Your task to perform on an android device: Search for vegetarian restaurants on Maps Image 0: 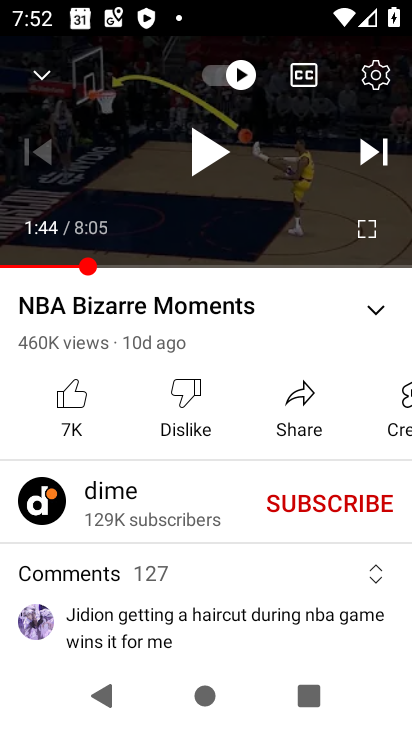
Step 0: drag from (371, 526) to (362, 261)
Your task to perform on an android device: Search for vegetarian restaurants on Maps Image 1: 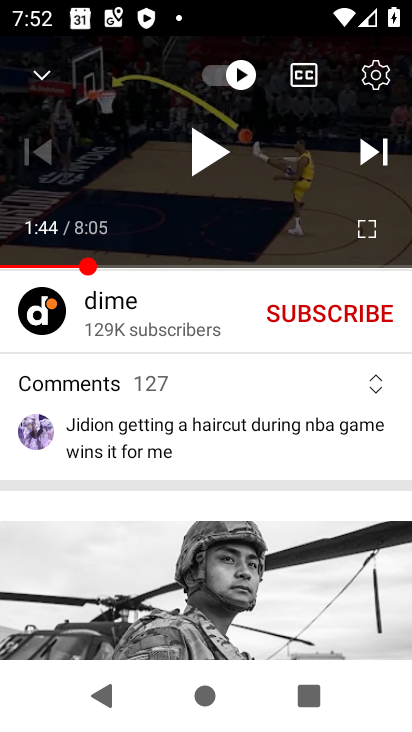
Step 1: press home button
Your task to perform on an android device: Search for vegetarian restaurants on Maps Image 2: 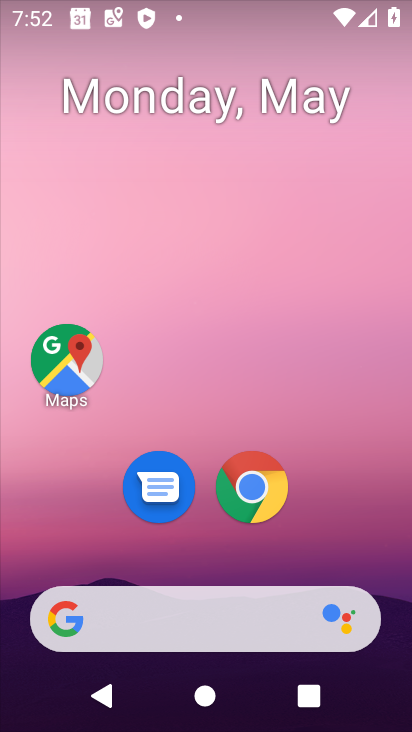
Step 2: drag from (348, 560) to (357, 169)
Your task to perform on an android device: Search for vegetarian restaurants on Maps Image 3: 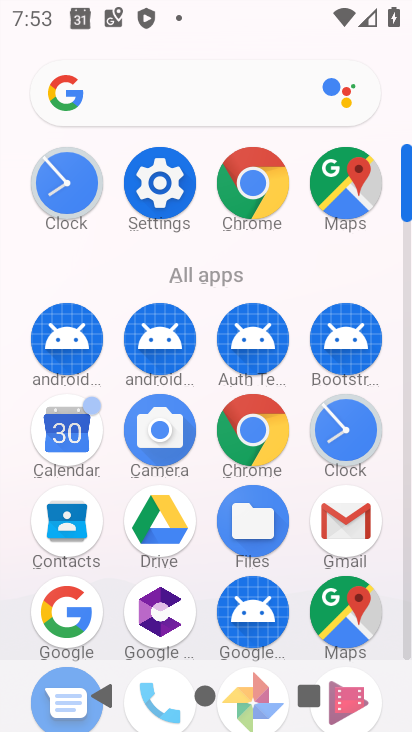
Step 3: click (356, 202)
Your task to perform on an android device: Search for vegetarian restaurants on Maps Image 4: 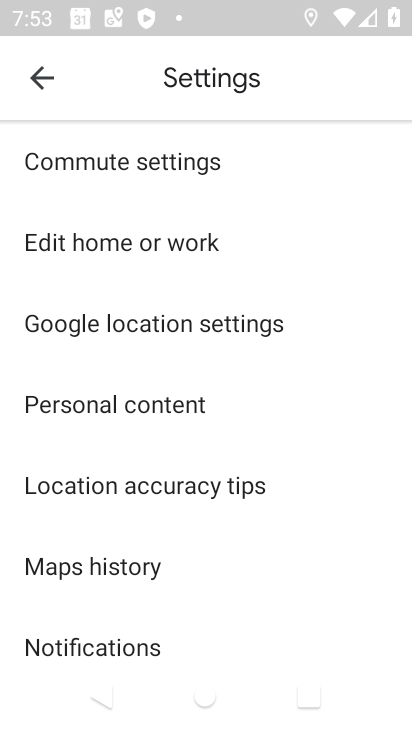
Step 4: press back button
Your task to perform on an android device: Search for vegetarian restaurants on Maps Image 5: 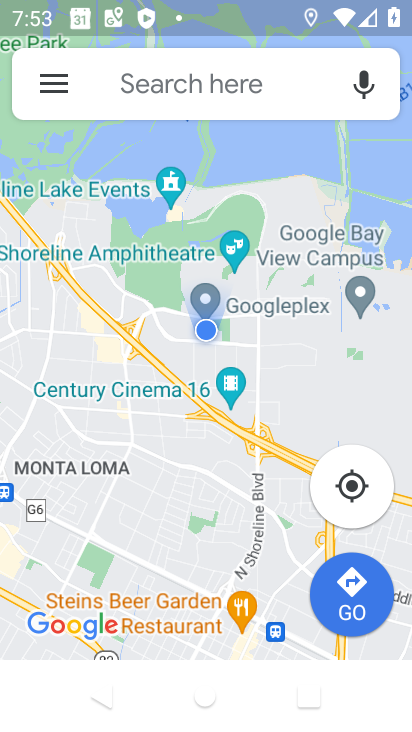
Step 5: click (266, 80)
Your task to perform on an android device: Search for vegetarian restaurants on Maps Image 6: 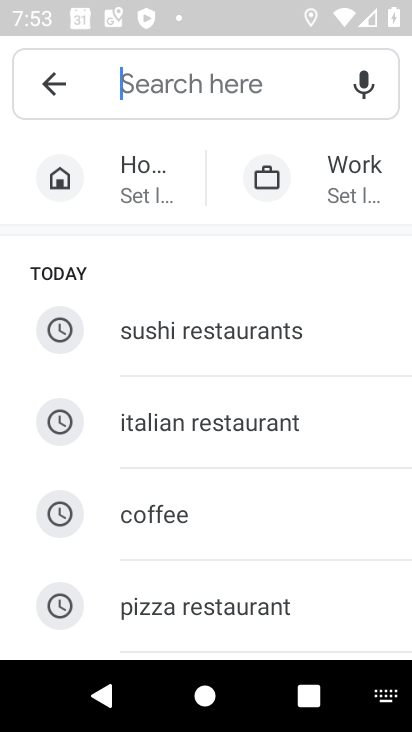
Step 6: type "vegetrain restaurants"
Your task to perform on an android device: Search for vegetarian restaurants on Maps Image 7: 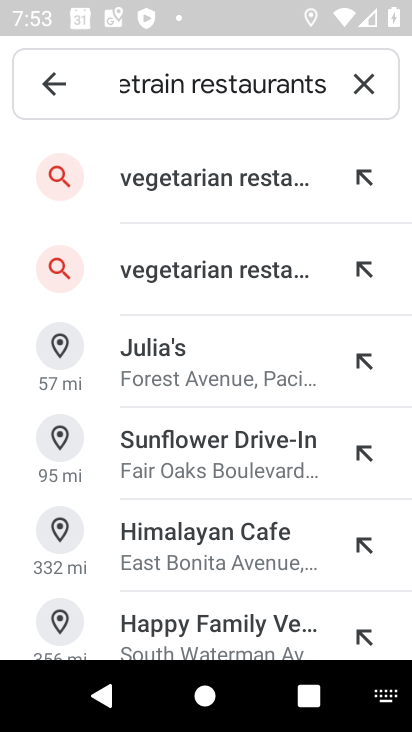
Step 7: click (179, 180)
Your task to perform on an android device: Search for vegetarian restaurants on Maps Image 8: 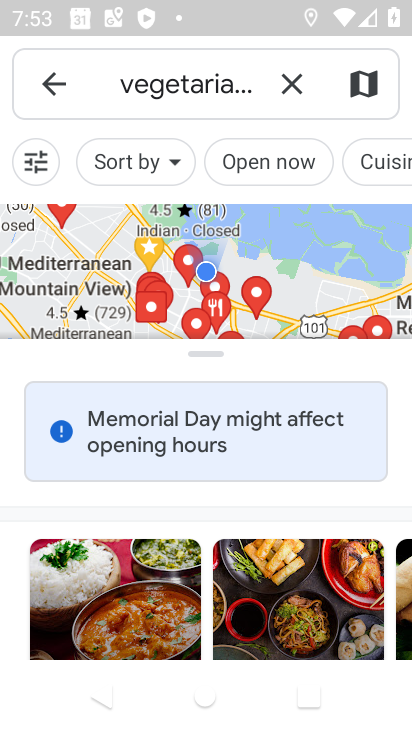
Step 8: task complete